Your task to perform on an android device: Open Google Chrome and click the shortcut for Amazon.com Image 0: 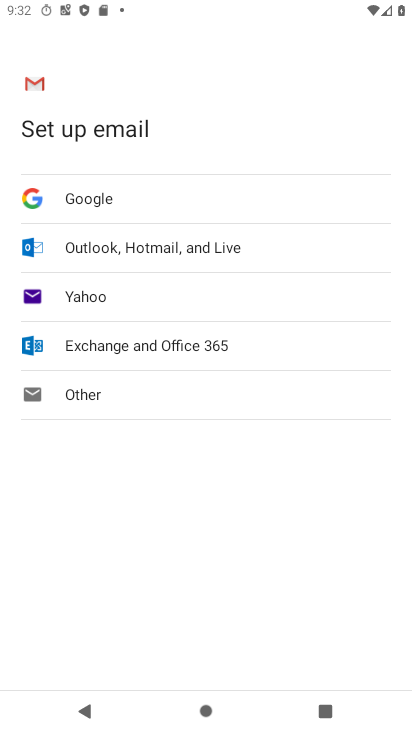
Step 0: press home button
Your task to perform on an android device: Open Google Chrome and click the shortcut for Amazon.com Image 1: 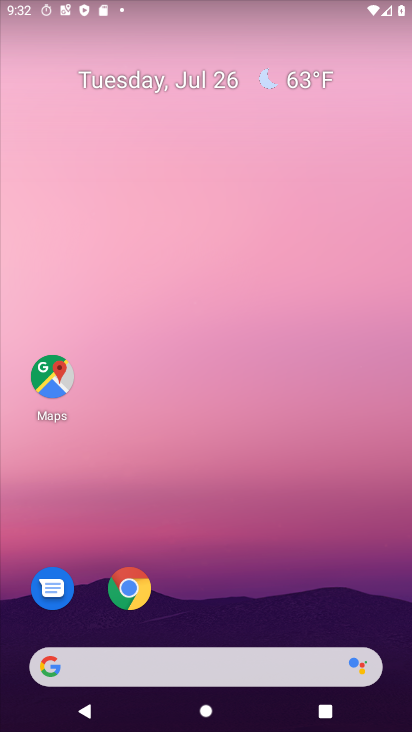
Step 1: click (122, 597)
Your task to perform on an android device: Open Google Chrome and click the shortcut for Amazon.com Image 2: 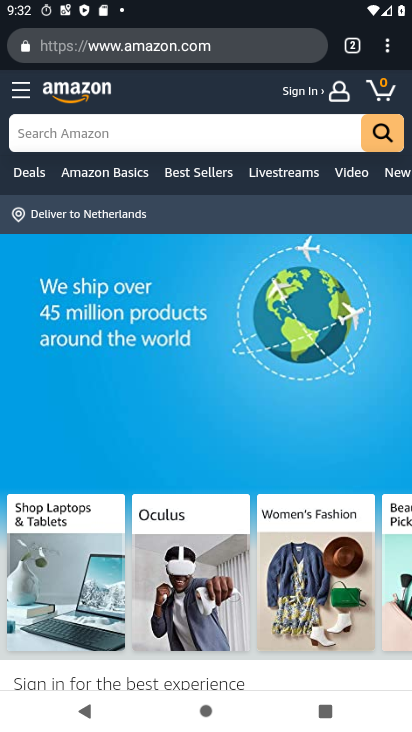
Step 2: task complete